Your task to perform on an android device: turn notification dots on Image 0: 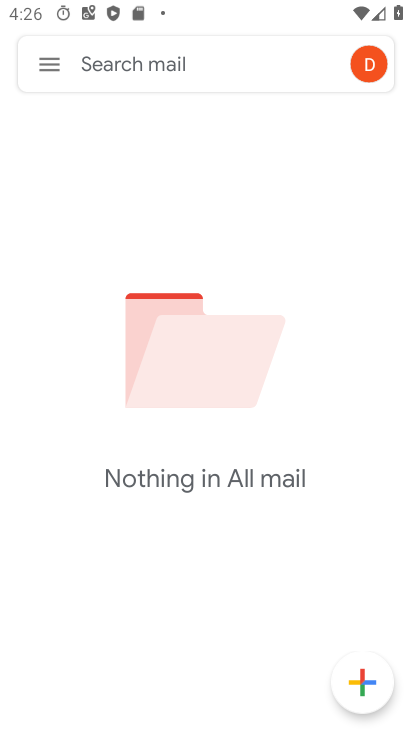
Step 0: press home button
Your task to perform on an android device: turn notification dots on Image 1: 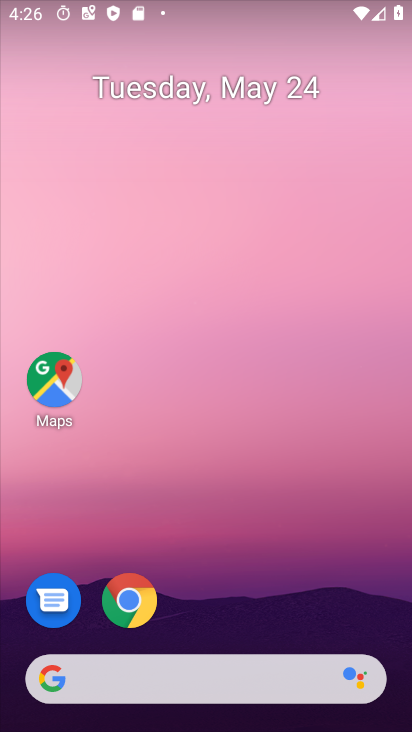
Step 1: drag from (216, 609) to (203, 1)
Your task to perform on an android device: turn notification dots on Image 2: 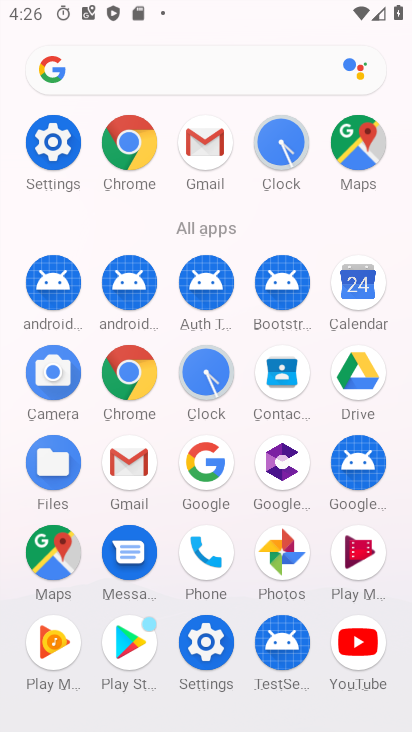
Step 2: click (47, 145)
Your task to perform on an android device: turn notification dots on Image 3: 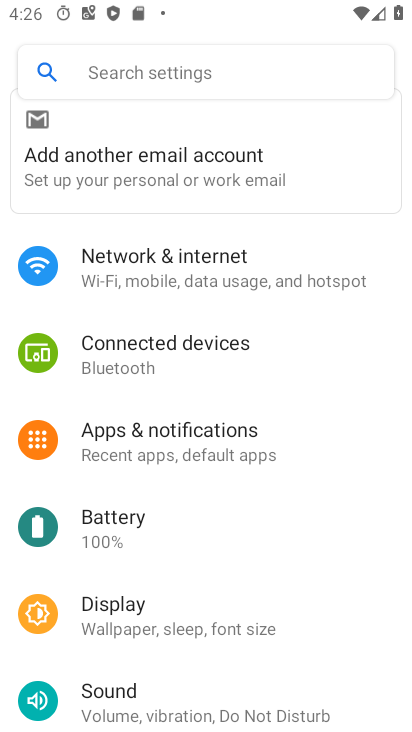
Step 3: click (149, 440)
Your task to perform on an android device: turn notification dots on Image 4: 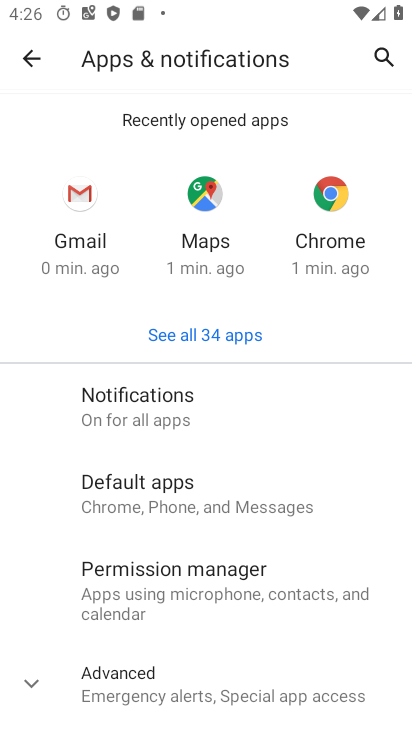
Step 4: click (134, 407)
Your task to perform on an android device: turn notification dots on Image 5: 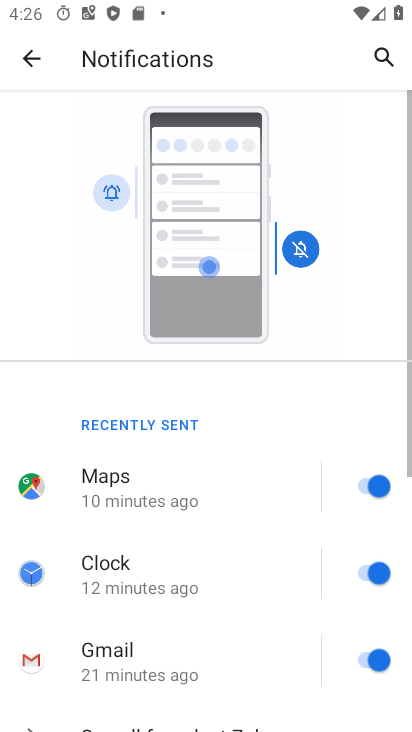
Step 5: drag from (206, 511) to (191, 23)
Your task to perform on an android device: turn notification dots on Image 6: 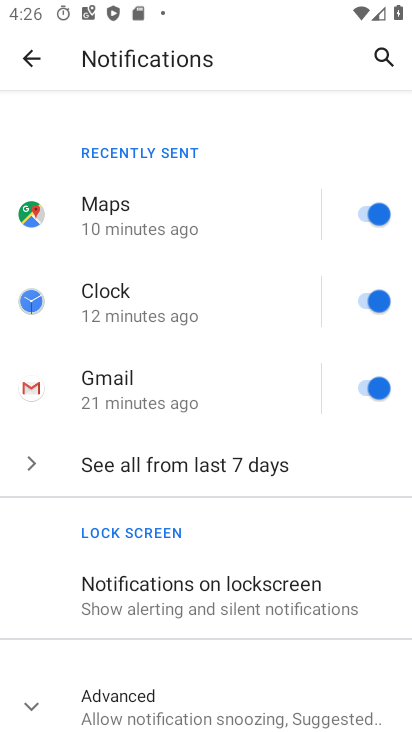
Step 6: click (33, 708)
Your task to perform on an android device: turn notification dots on Image 7: 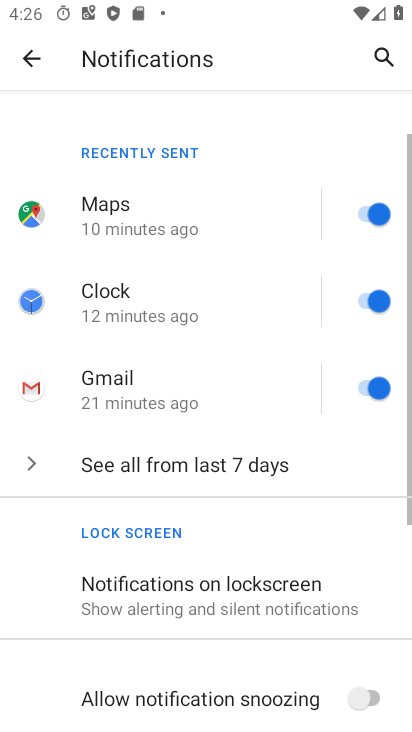
Step 7: task complete